Your task to perform on an android device: turn off notifications in google photos Image 0: 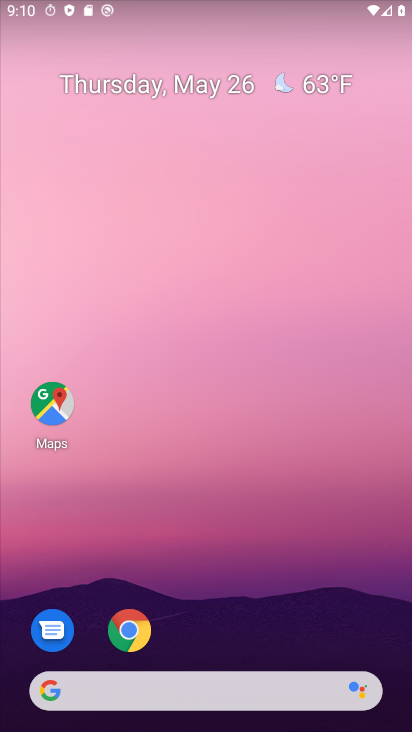
Step 0: drag from (234, 560) to (234, 82)
Your task to perform on an android device: turn off notifications in google photos Image 1: 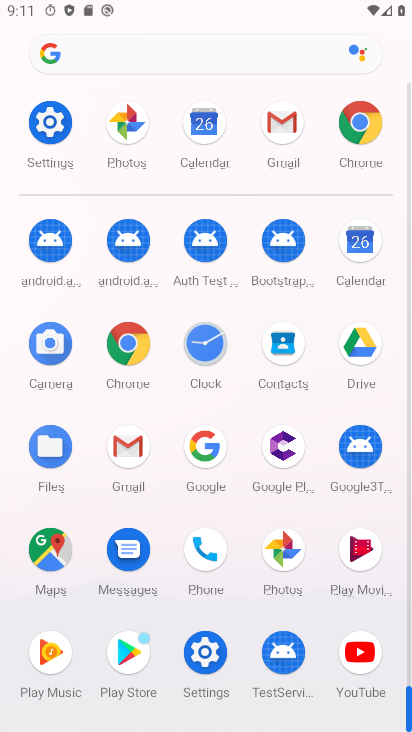
Step 1: click (288, 539)
Your task to perform on an android device: turn off notifications in google photos Image 2: 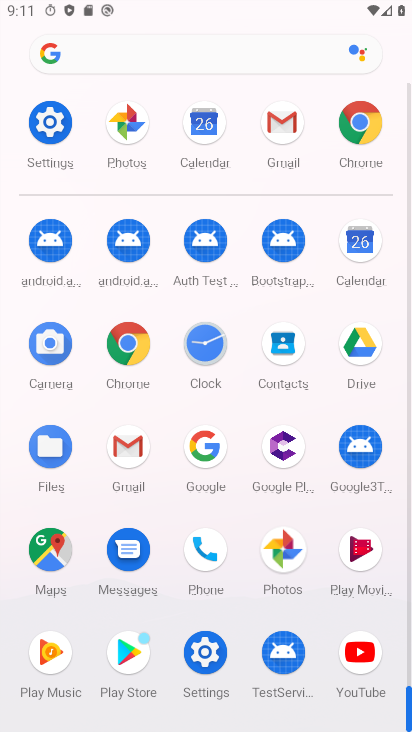
Step 2: click (303, 541)
Your task to perform on an android device: turn off notifications in google photos Image 3: 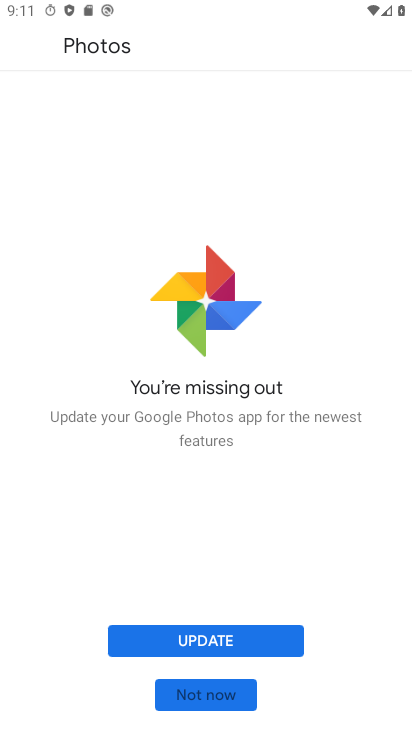
Step 3: click (210, 700)
Your task to perform on an android device: turn off notifications in google photos Image 4: 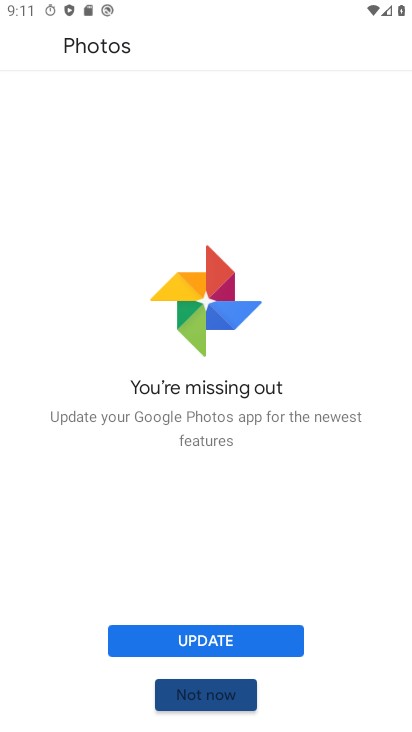
Step 4: click (211, 700)
Your task to perform on an android device: turn off notifications in google photos Image 5: 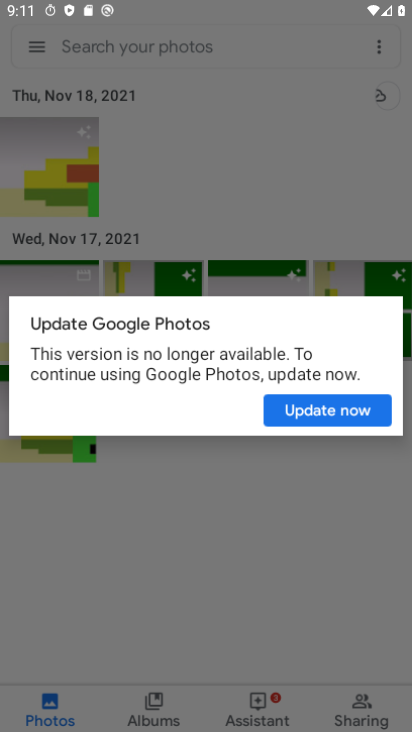
Step 5: click (209, 697)
Your task to perform on an android device: turn off notifications in google photos Image 6: 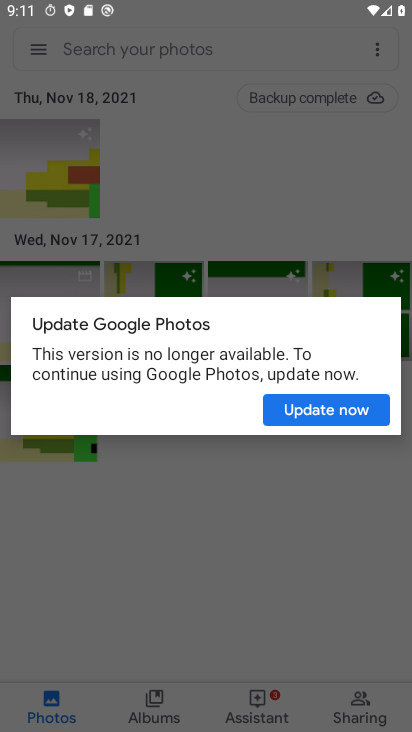
Step 6: drag from (320, 399) to (352, 411)
Your task to perform on an android device: turn off notifications in google photos Image 7: 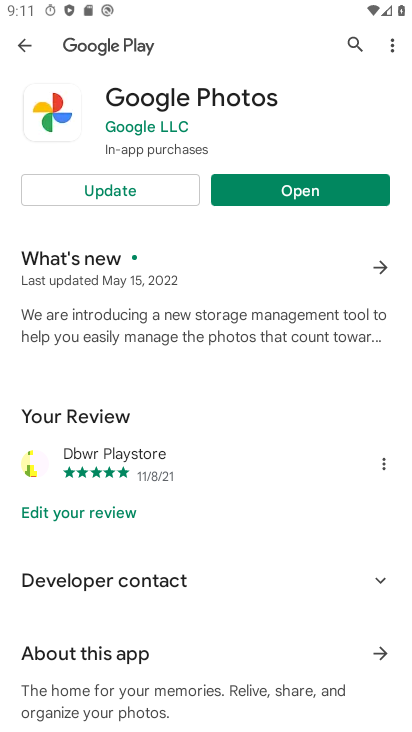
Step 7: click (79, 197)
Your task to perform on an android device: turn off notifications in google photos Image 8: 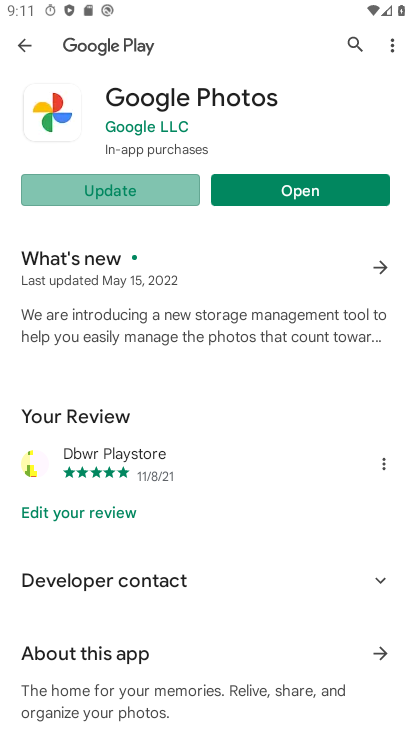
Step 8: click (97, 204)
Your task to perform on an android device: turn off notifications in google photos Image 9: 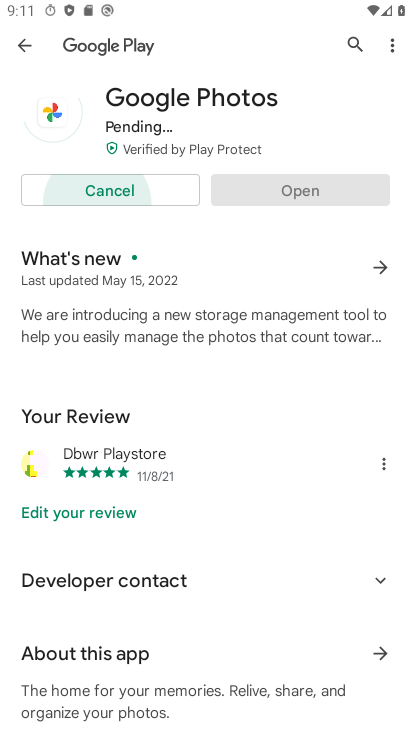
Step 9: click (99, 203)
Your task to perform on an android device: turn off notifications in google photos Image 10: 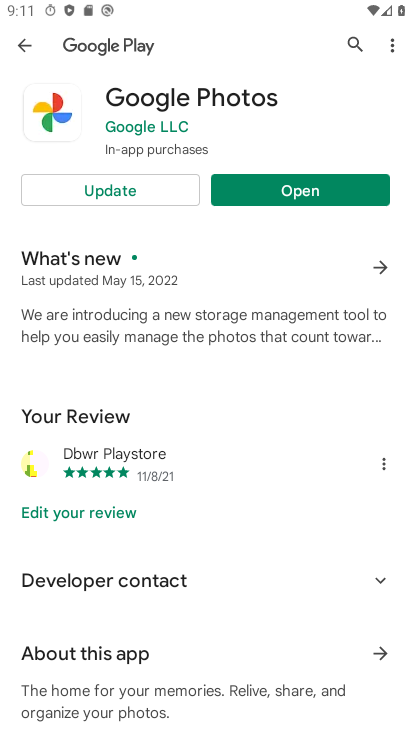
Step 10: click (283, 197)
Your task to perform on an android device: turn off notifications in google photos Image 11: 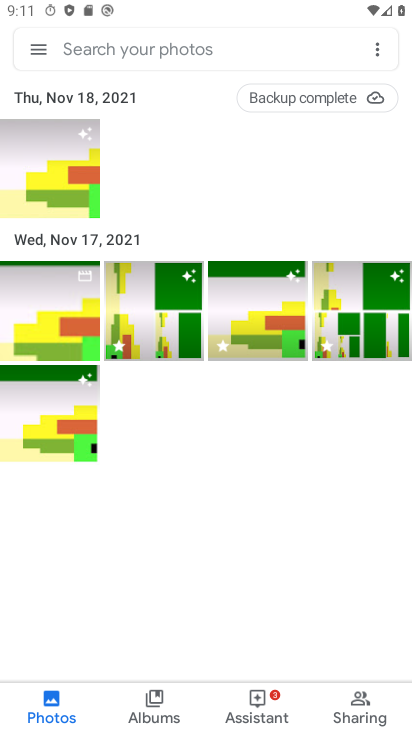
Step 11: click (48, 51)
Your task to perform on an android device: turn off notifications in google photos Image 12: 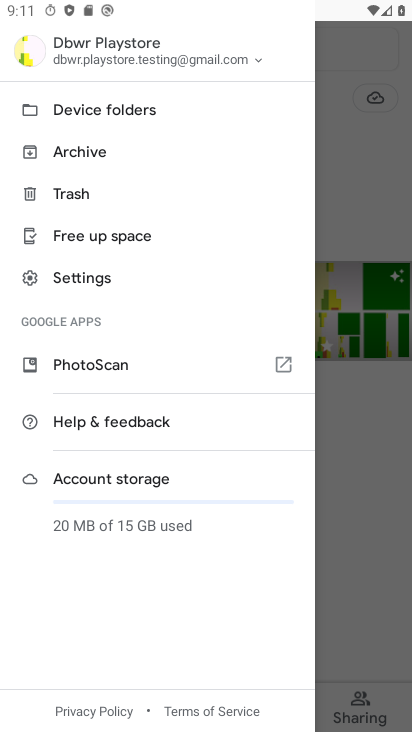
Step 12: click (76, 282)
Your task to perform on an android device: turn off notifications in google photos Image 13: 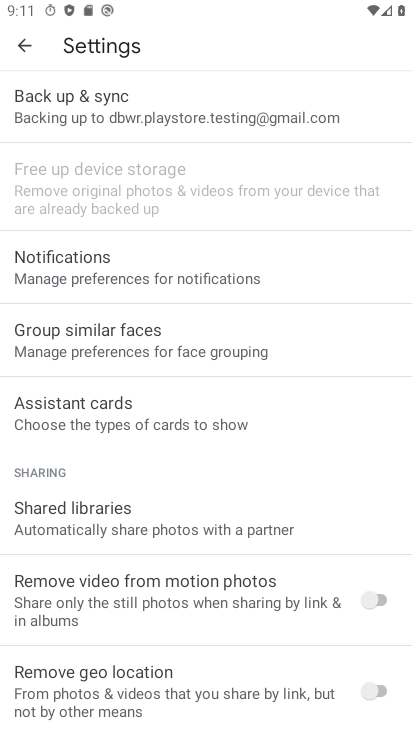
Step 13: click (73, 262)
Your task to perform on an android device: turn off notifications in google photos Image 14: 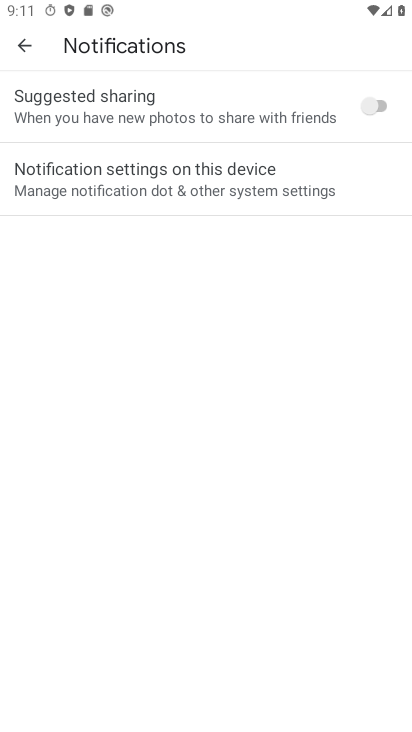
Step 14: click (222, 187)
Your task to perform on an android device: turn off notifications in google photos Image 15: 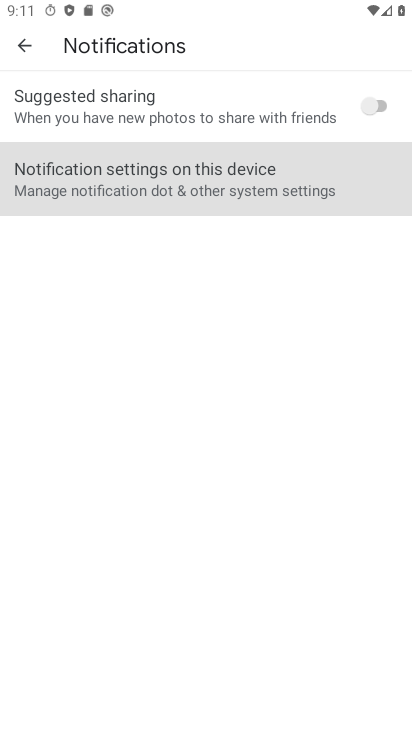
Step 15: click (225, 187)
Your task to perform on an android device: turn off notifications in google photos Image 16: 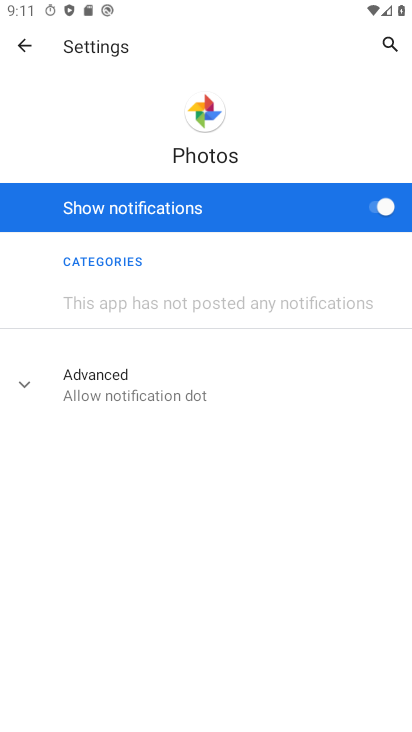
Step 16: click (390, 206)
Your task to perform on an android device: turn off notifications in google photos Image 17: 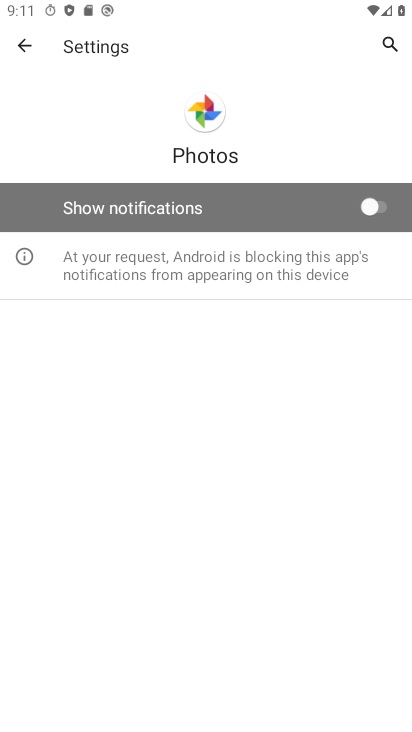
Step 17: task complete